Your task to perform on an android device: Open CNN.com Image 0: 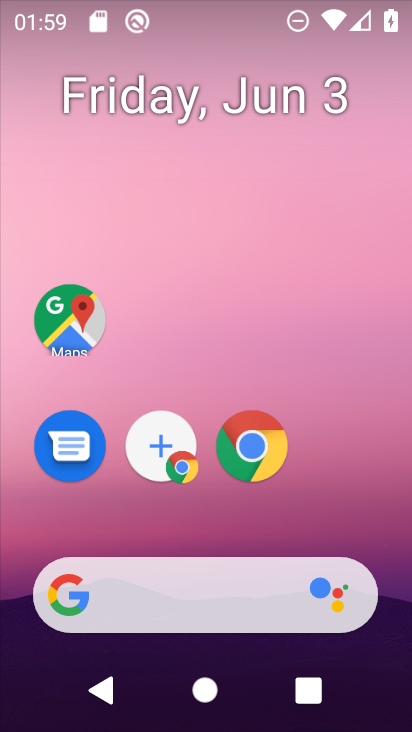
Step 0: click (215, 593)
Your task to perform on an android device: Open CNN.com Image 1: 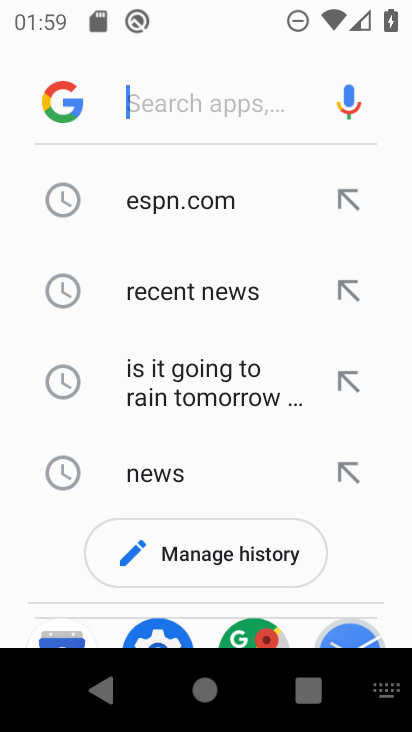
Step 1: type "cnn.com"
Your task to perform on an android device: Open CNN.com Image 2: 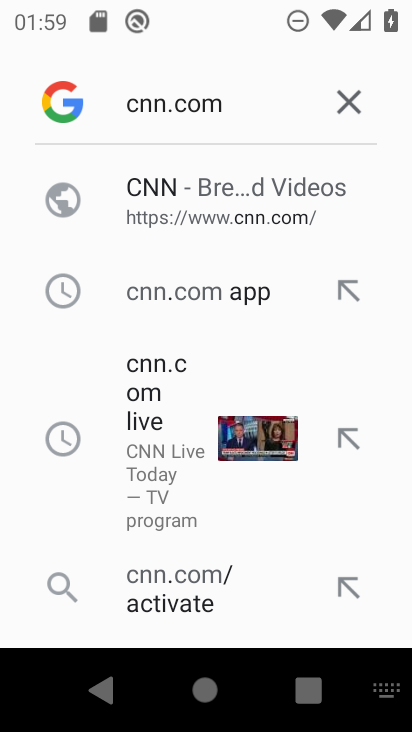
Step 2: click (211, 214)
Your task to perform on an android device: Open CNN.com Image 3: 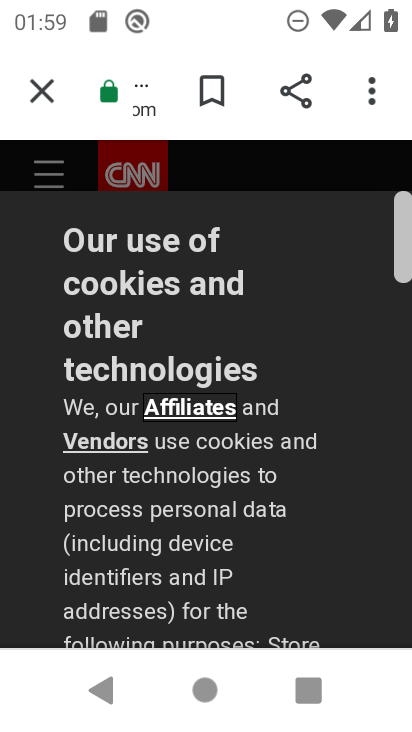
Step 3: task complete